Your task to perform on an android device: Open Google Maps and go to "Timeline" Image 0: 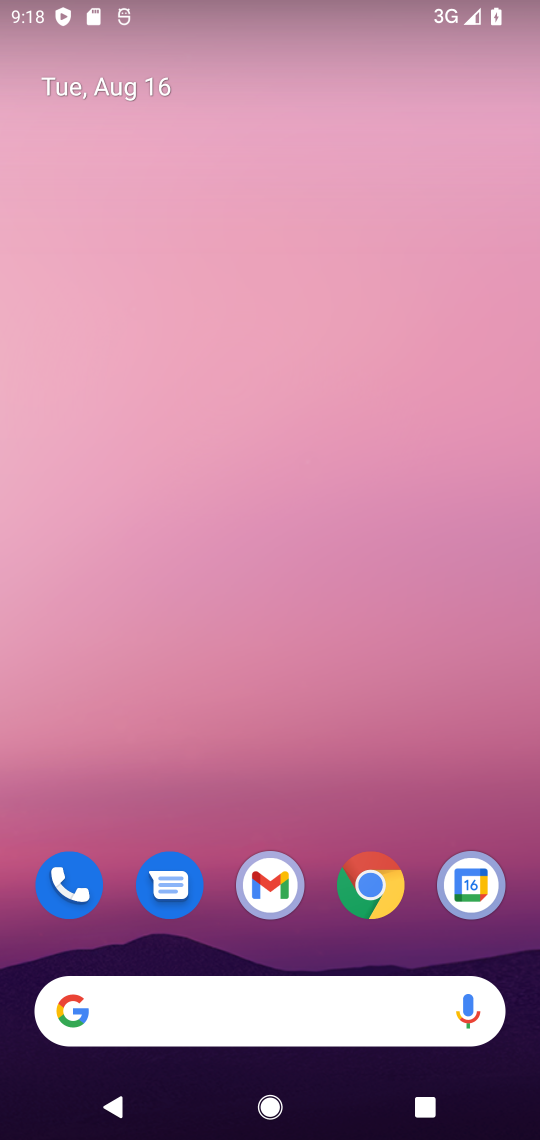
Step 0: click (243, 251)
Your task to perform on an android device: Open Google Maps and go to "Timeline" Image 1: 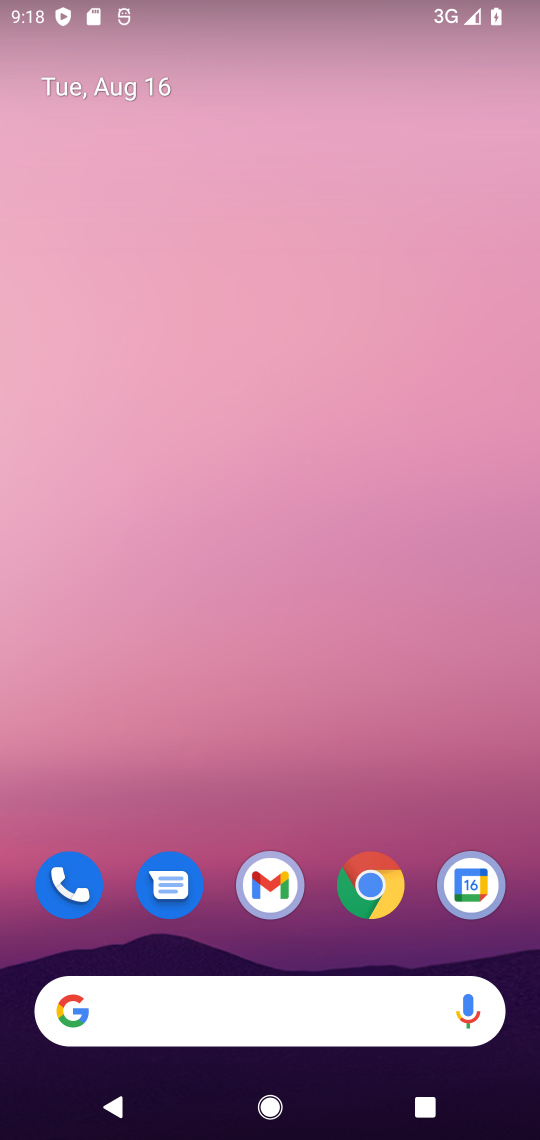
Step 1: drag from (265, 906) to (263, 193)
Your task to perform on an android device: Open Google Maps and go to "Timeline" Image 2: 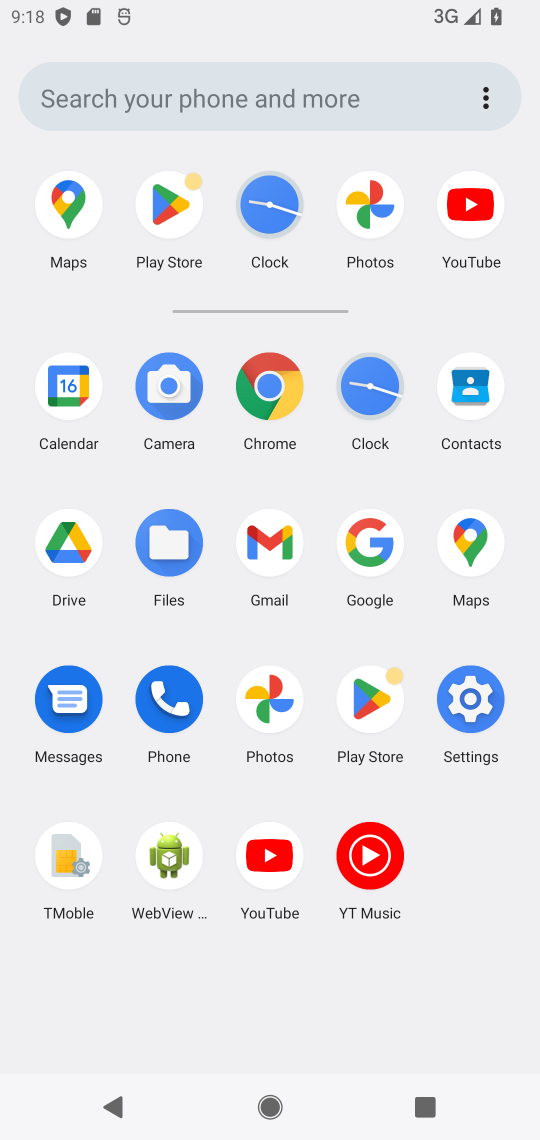
Step 2: click (477, 559)
Your task to perform on an android device: Open Google Maps and go to "Timeline" Image 3: 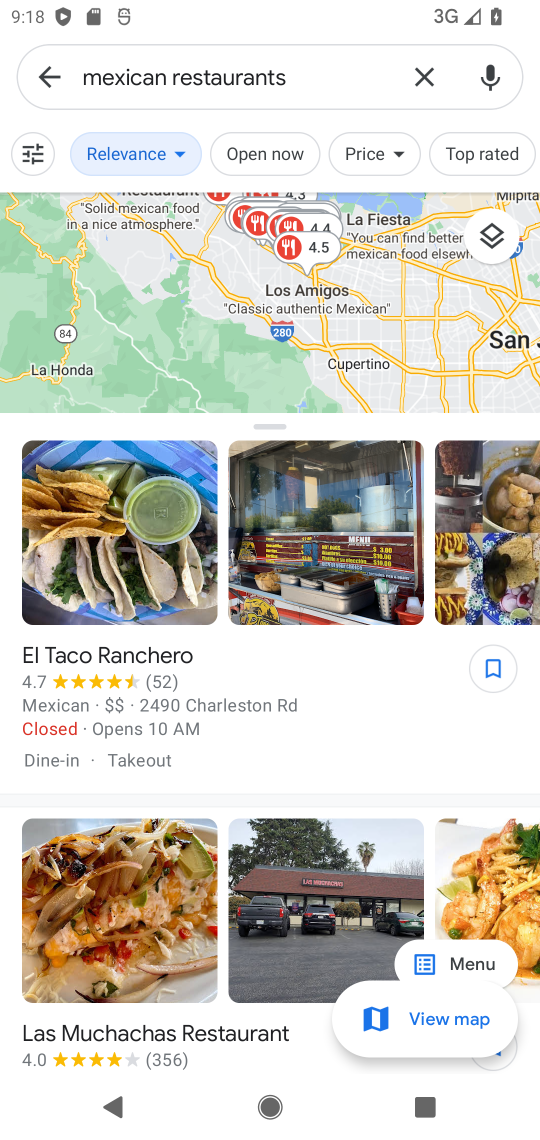
Step 3: click (39, 78)
Your task to perform on an android device: Open Google Maps and go to "Timeline" Image 4: 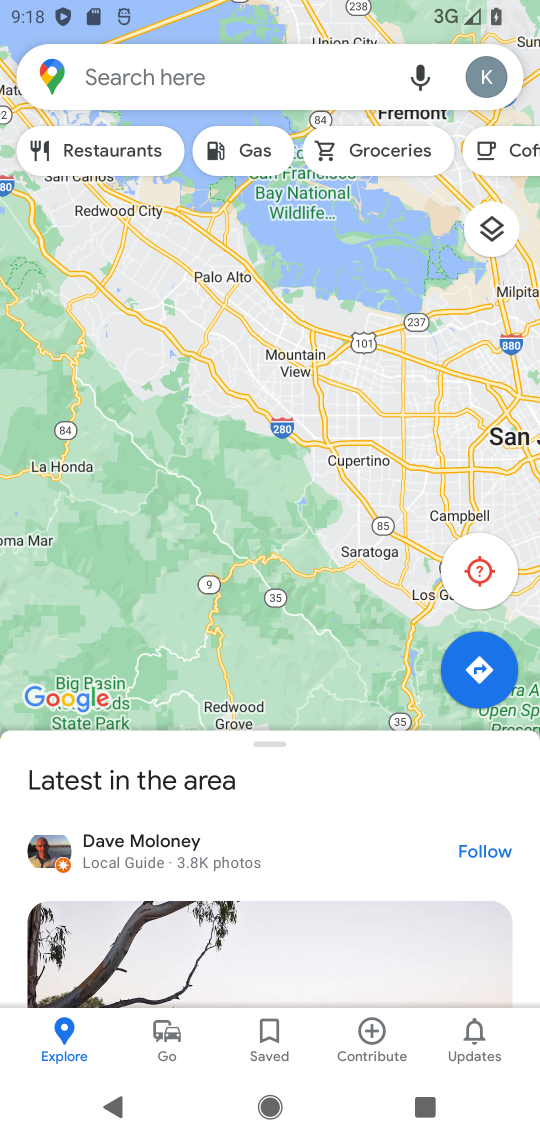
Step 4: click (260, 1050)
Your task to perform on an android device: Open Google Maps and go to "Timeline" Image 5: 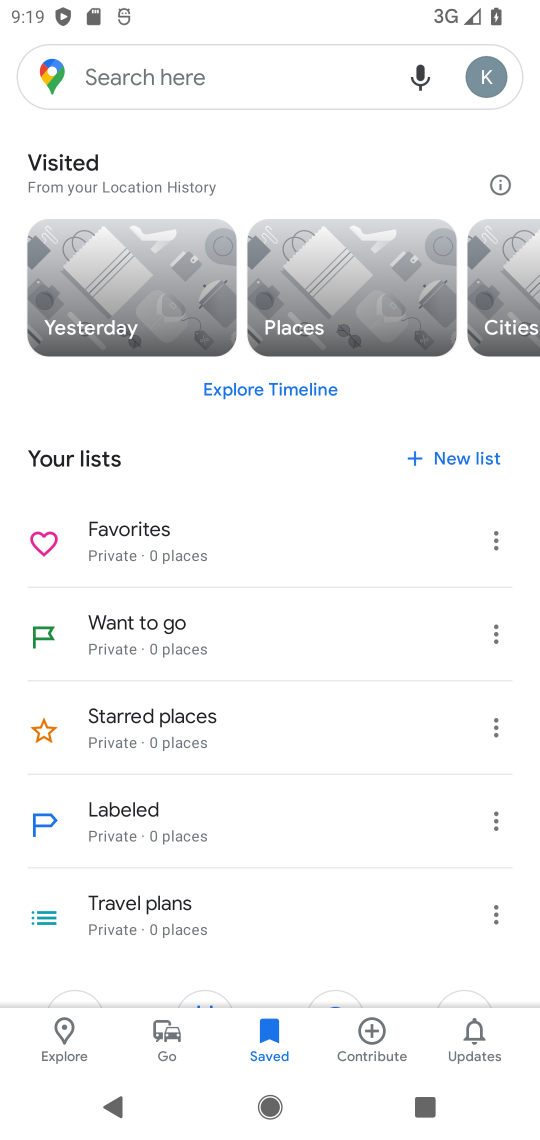
Step 5: click (59, 753)
Your task to perform on an android device: Open Google Maps and go to "Timeline" Image 6: 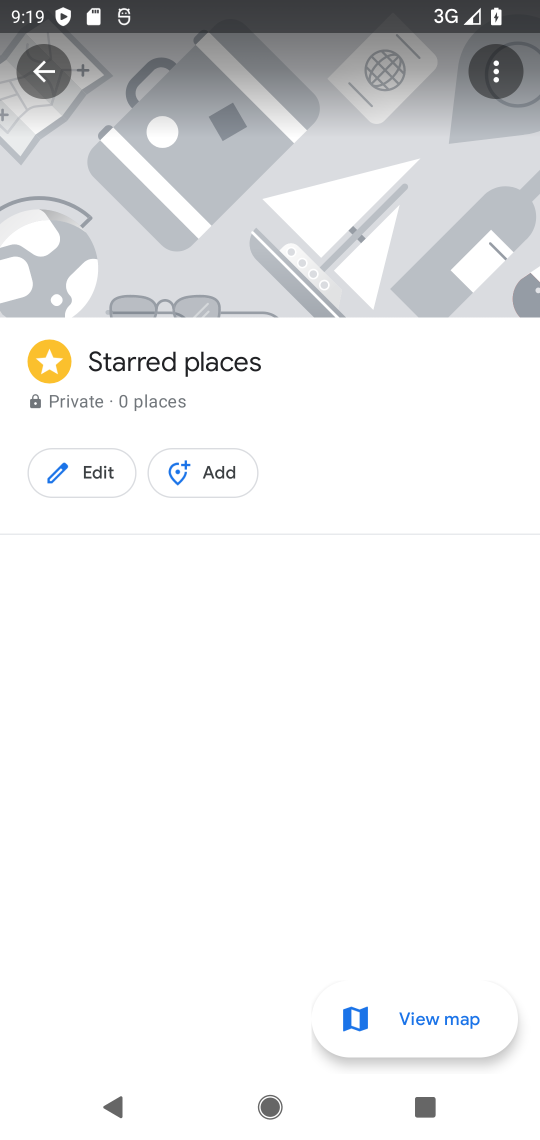
Step 6: press back button
Your task to perform on an android device: Open Google Maps and go to "Timeline" Image 7: 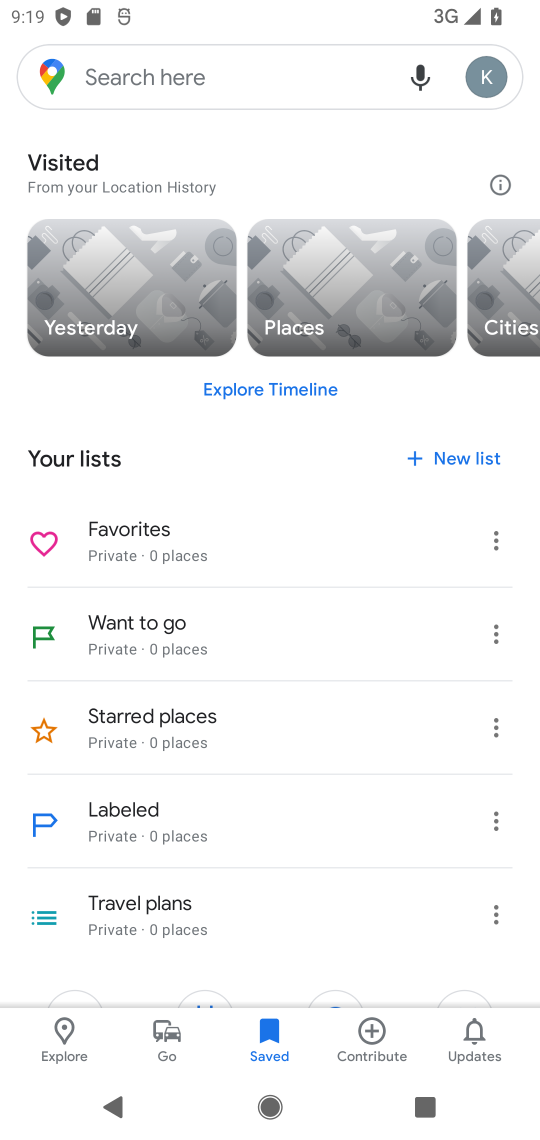
Step 7: click (287, 397)
Your task to perform on an android device: Open Google Maps and go to "Timeline" Image 8: 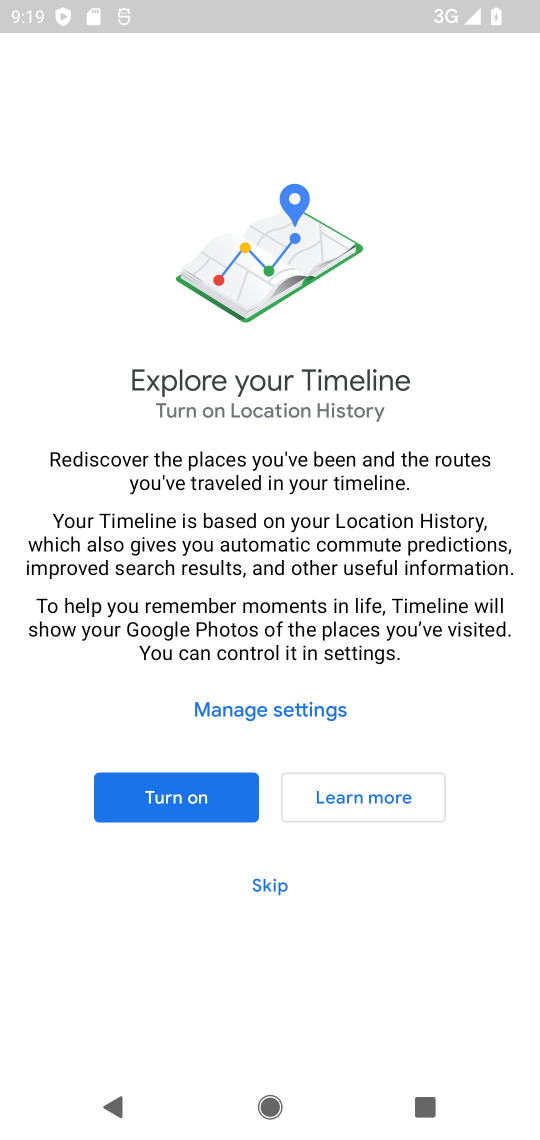
Step 8: click (189, 803)
Your task to perform on an android device: Open Google Maps and go to "Timeline" Image 9: 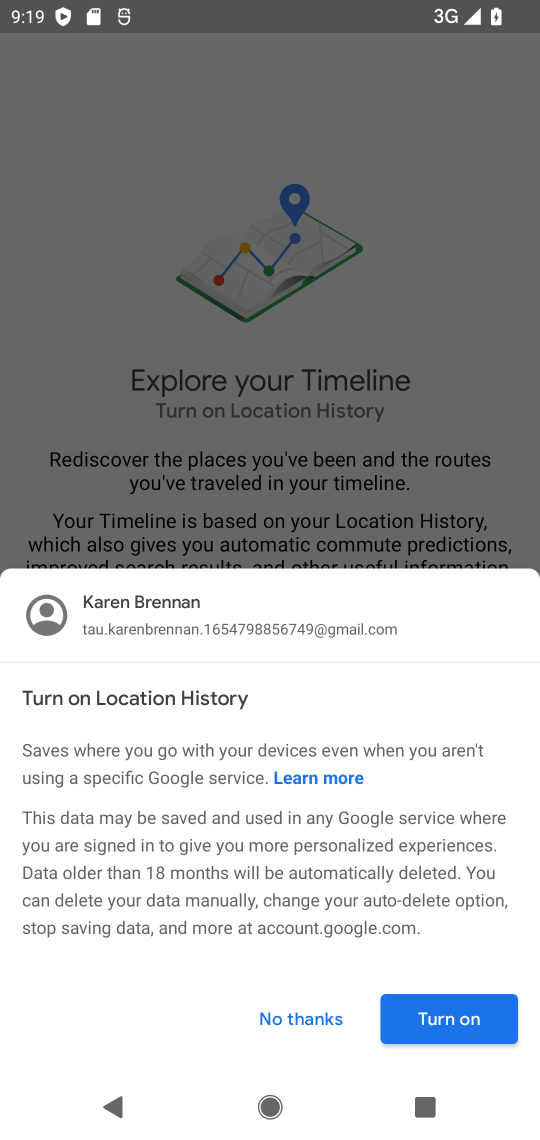
Step 9: click (406, 1020)
Your task to perform on an android device: Open Google Maps and go to "Timeline" Image 10: 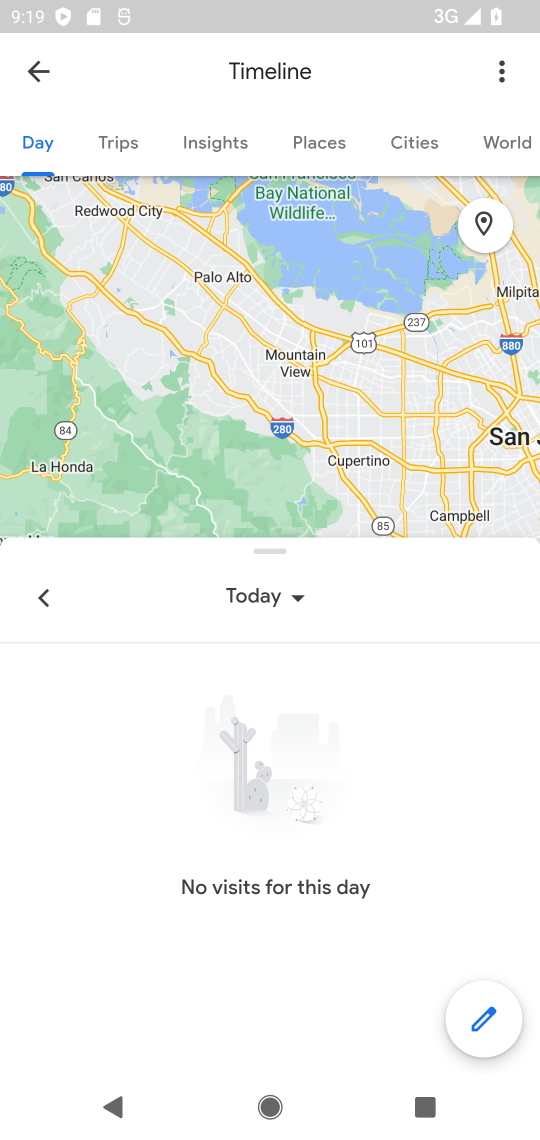
Step 10: task complete